Your task to perform on an android device: Set the phone to "Do not disturb". Image 0: 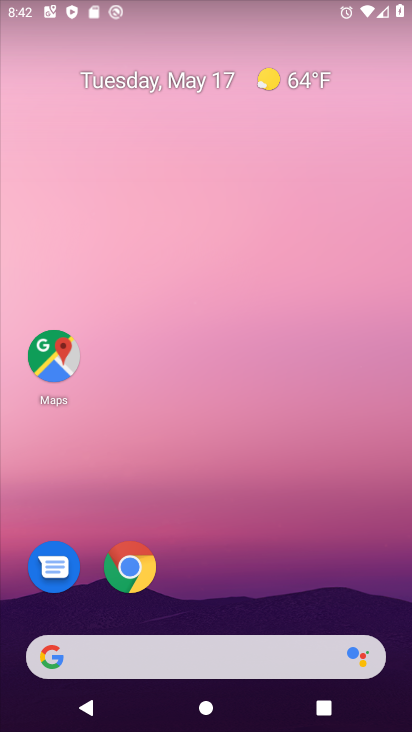
Step 0: drag from (370, 598) to (253, 121)
Your task to perform on an android device: Set the phone to "Do not disturb". Image 1: 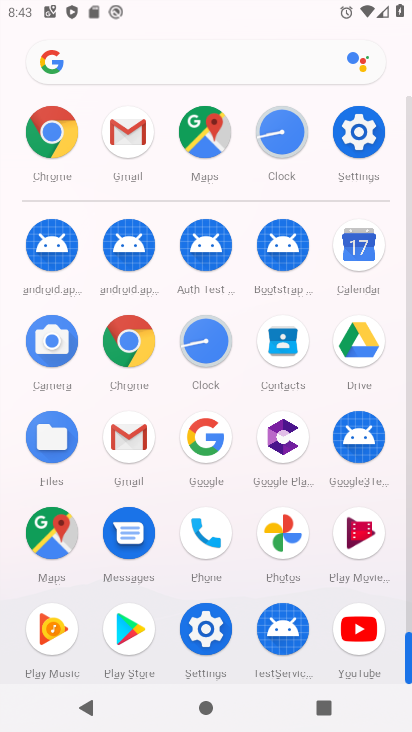
Step 1: drag from (218, 8) to (161, 432)
Your task to perform on an android device: Set the phone to "Do not disturb". Image 2: 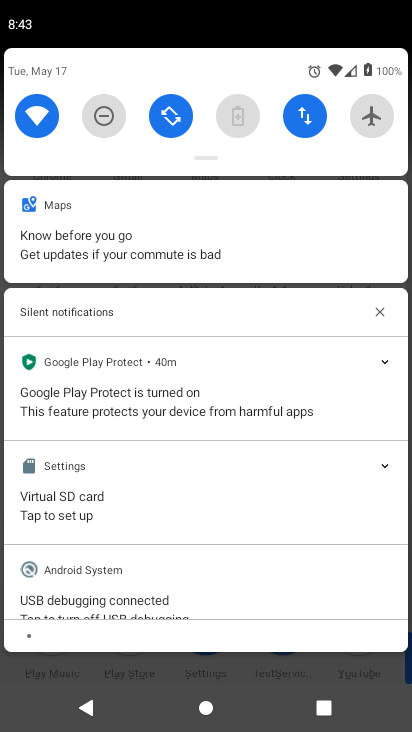
Step 2: click (100, 122)
Your task to perform on an android device: Set the phone to "Do not disturb". Image 3: 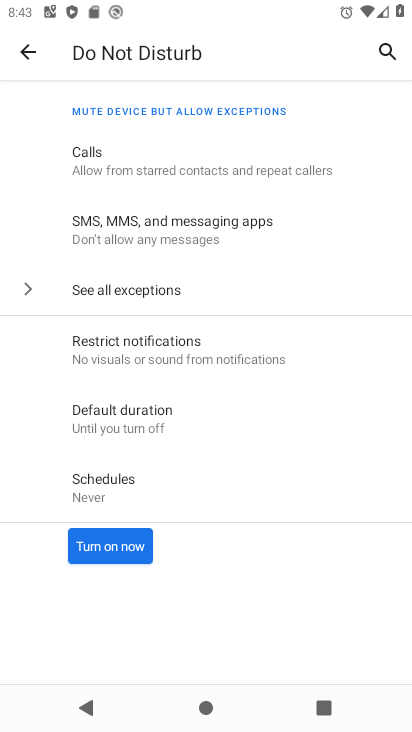
Step 3: click (114, 546)
Your task to perform on an android device: Set the phone to "Do not disturb". Image 4: 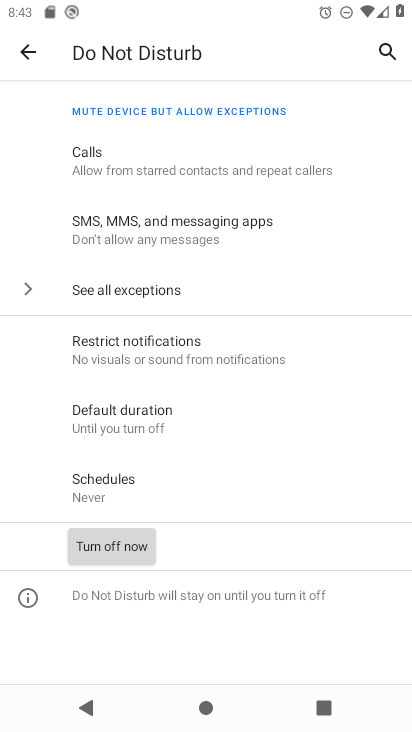
Step 4: task complete